Your task to perform on an android device: Do I have any events this weekend? Image 0: 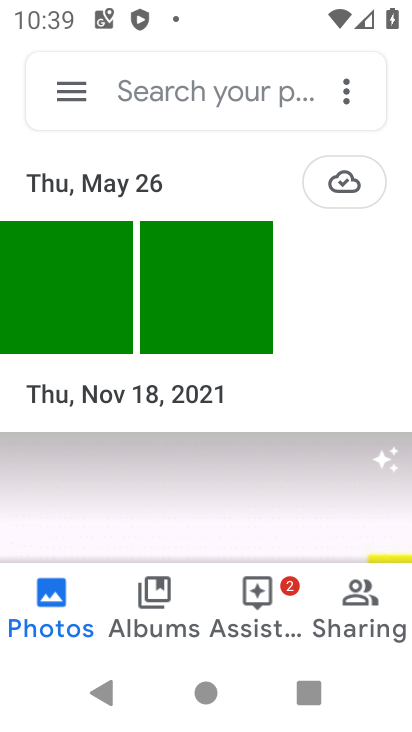
Step 0: press home button
Your task to perform on an android device: Do I have any events this weekend? Image 1: 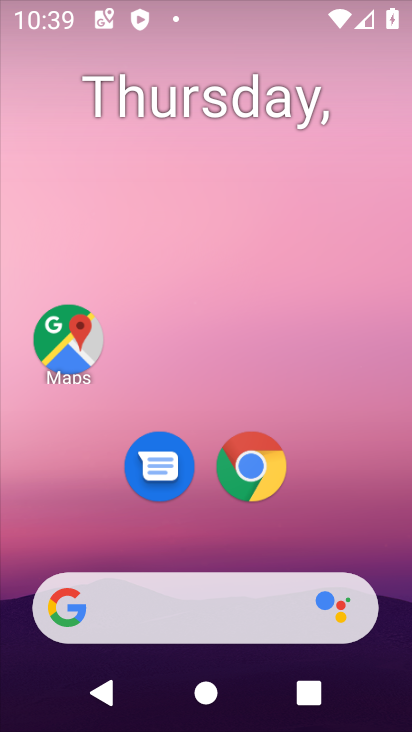
Step 1: drag from (218, 541) to (223, 243)
Your task to perform on an android device: Do I have any events this weekend? Image 2: 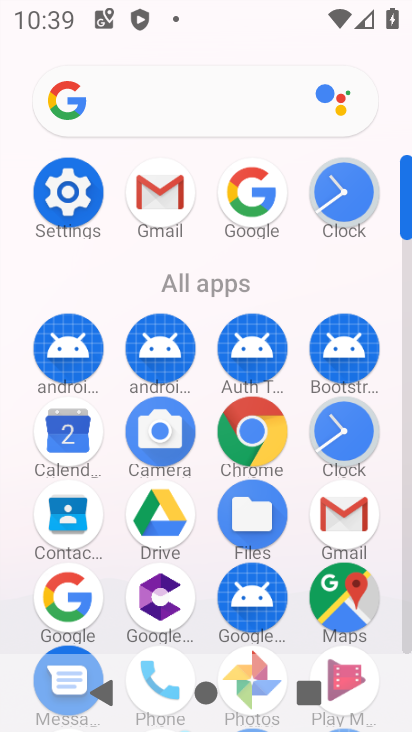
Step 2: drag from (215, 558) to (210, 292)
Your task to perform on an android device: Do I have any events this weekend? Image 3: 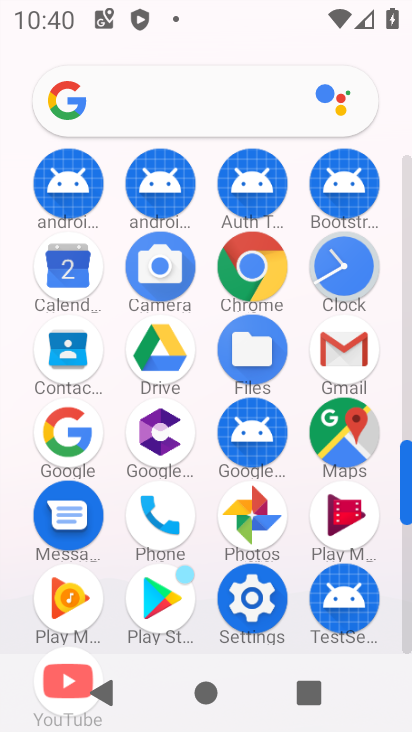
Step 3: click (78, 286)
Your task to perform on an android device: Do I have any events this weekend? Image 4: 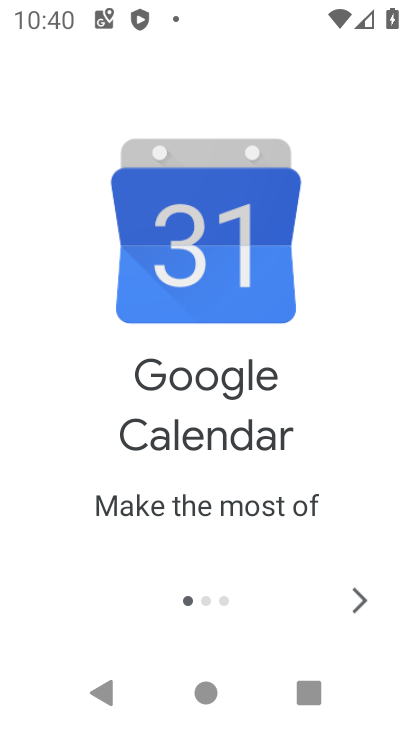
Step 4: click (359, 611)
Your task to perform on an android device: Do I have any events this weekend? Image 5: 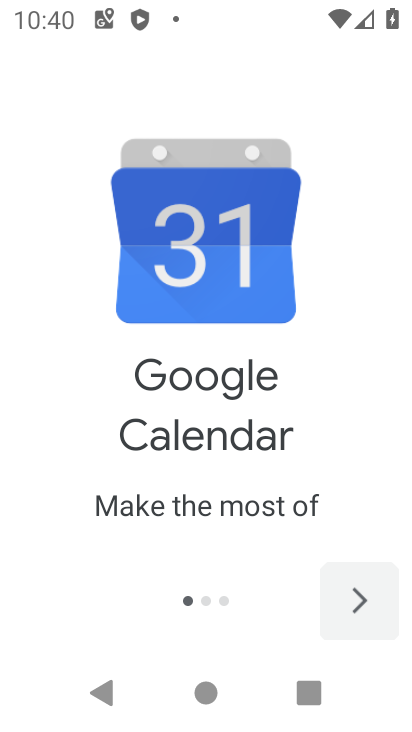
Step 5: click (359, 611)
Your task to perform on an android device: Do I have any events this weekend? Image 6: 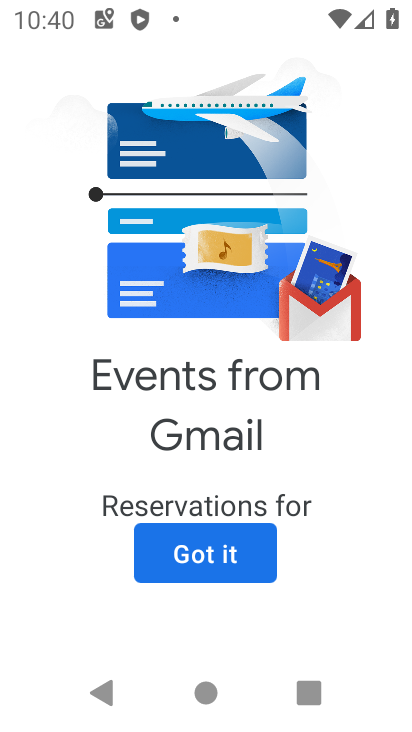
Step 6: click (359, 611)
Your task to perform on an android device: Do I have any events this weekend? Image 7: 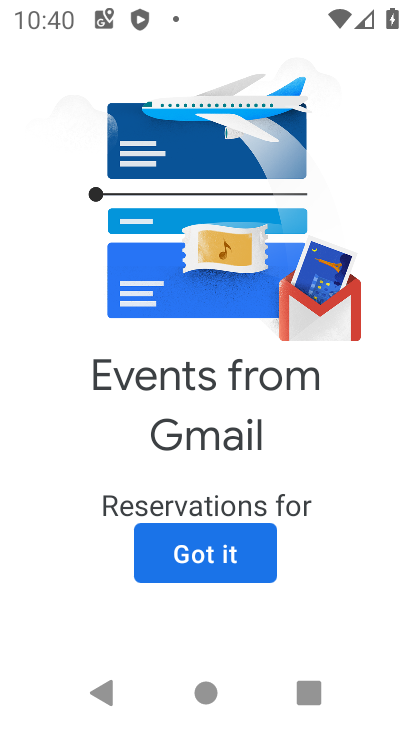
Step 7: click (261, 561)
Your task to perform on an android device: Do I have any events this weekend? Image 8: 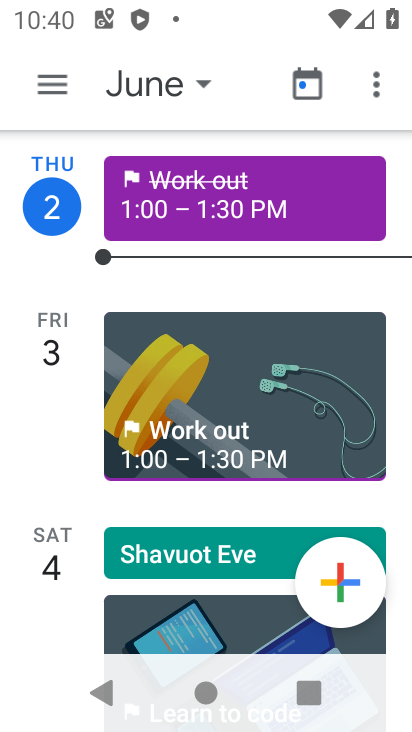
Step 8: click (185, 80)
Your task to perform on an android device: Do I have any events this weekend? Image 9: 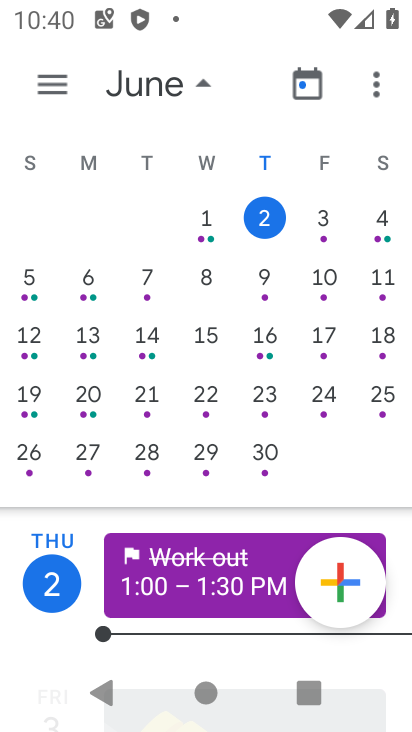
Step 9: click (377, 229)
Your task to perform on an android device: Do I have any events this weekend? Image 10: 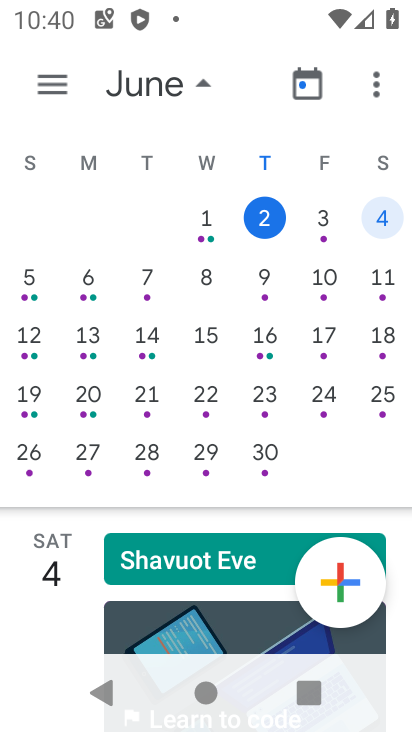
Step 10: click (391, 217)
Your task to perform on an android device: Do I have any events this weekend? Image 11: 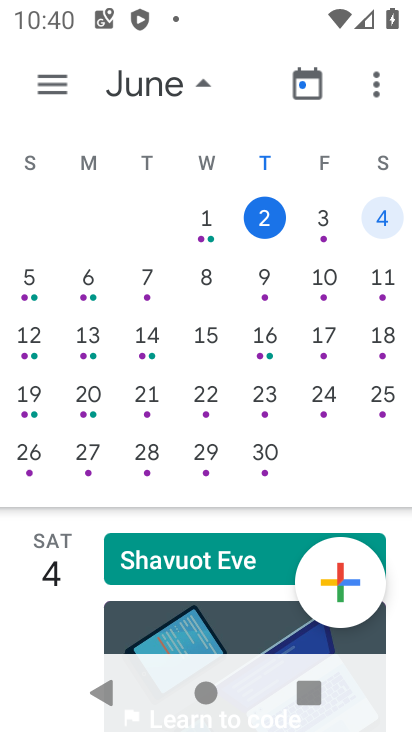
Step 11: task complete